Your task to perform on an android device: find which apps use the phone's location Image 0: 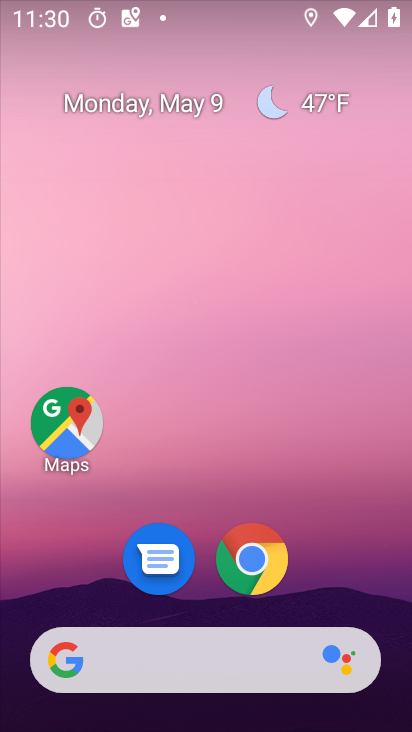
Step 0: drag from (339, 583) to (332, 112)
Your task to perform on an android device: find which apps use the phone's location Image 1: 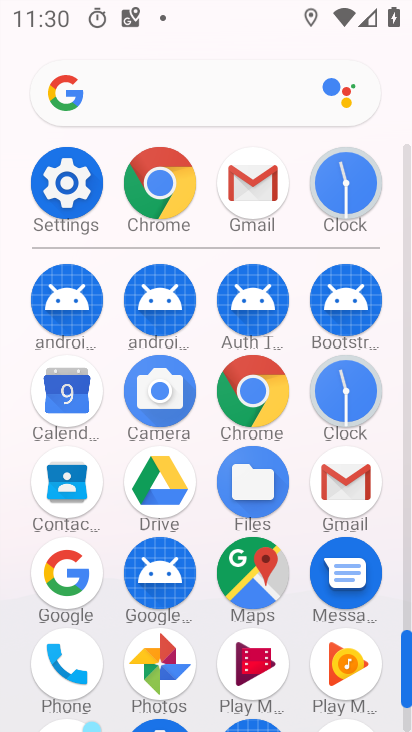
Step 1: click (68, 659)
Your task to perform on an android device: find which apps use the phone's location Image 2: 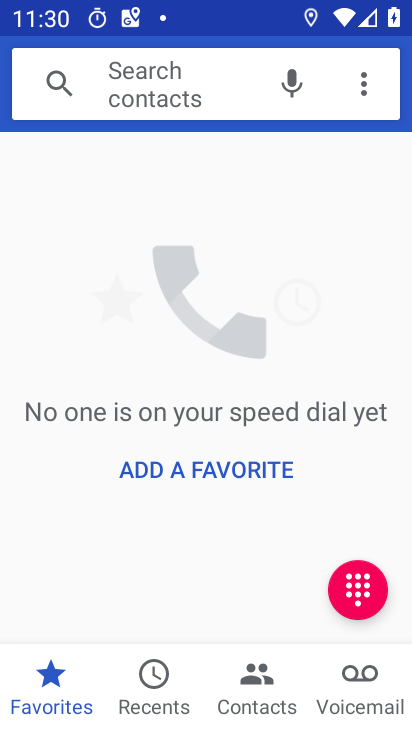
Step 2: press home button
Your task to perform on an android device: find which apps use the phone's location Image 3: 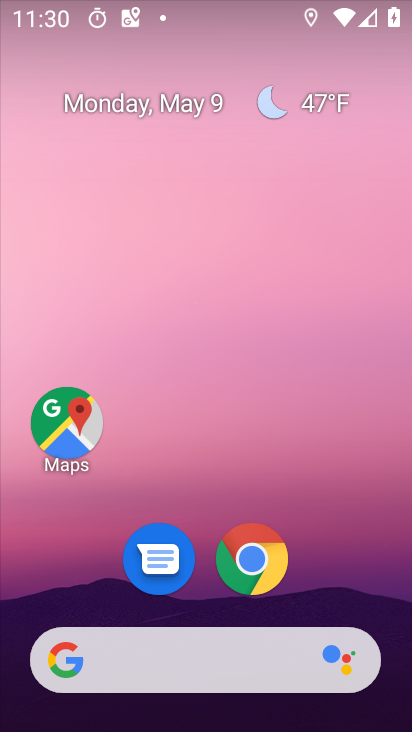
Step 3: drag from (319, 249) to (319, 16)
Your task to perform on an android device: find which apps use the phone's location Image 4: 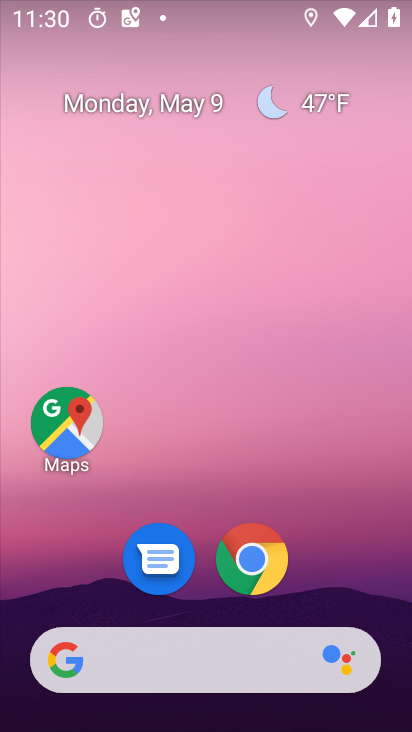
Step 4: drag from (153, 541) to (176, 95)
Your task to perform on an android device: find which apps use the phone's location Image 5: 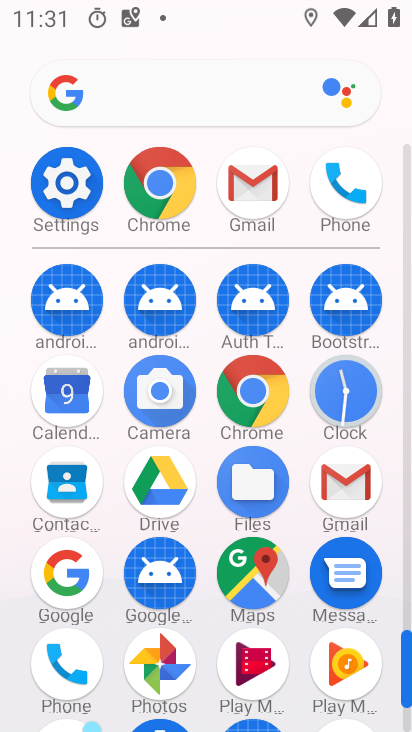
Step 5: click (67, 666)
Your task to perform on an android device: find which apps use the phone's location Image 6: 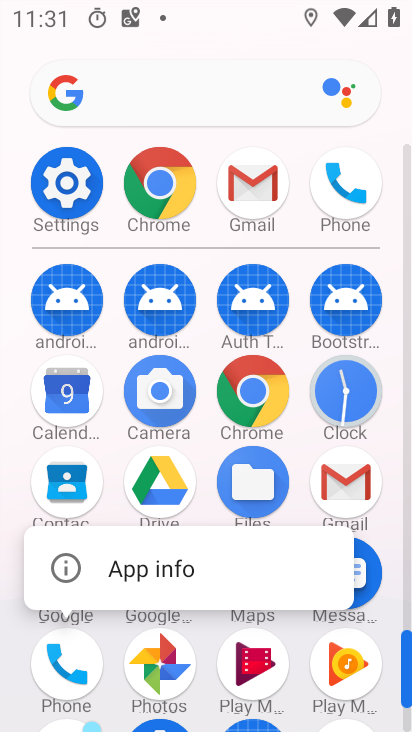
Step 6: click (137, 597)
Your task to perform on an android device: find which apps use the phone's location Image 7: 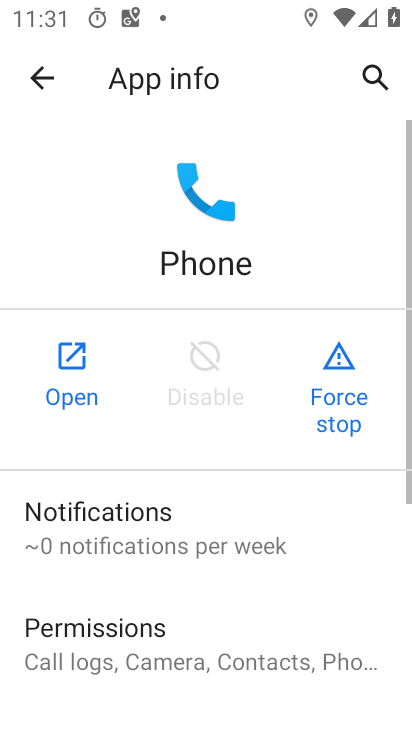
Step 7: click (153, 657)
Your task to perform on an android device: find which apps use the phone's location Image 8: 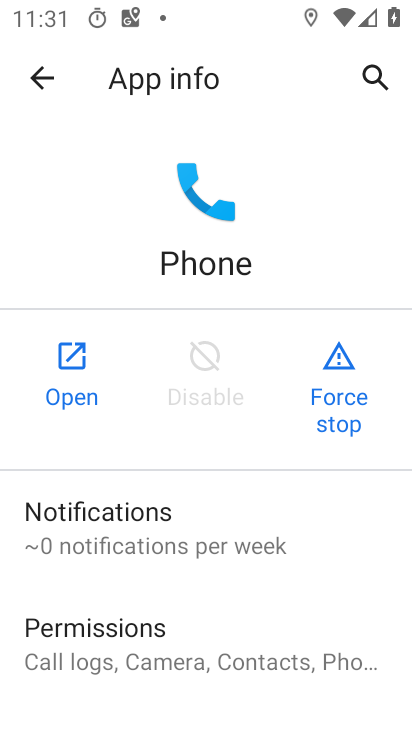
Step 8: drag from (153, 657) to (196, 290)
Your task to perform on an android device: find which apps use the phone's location Image 9: 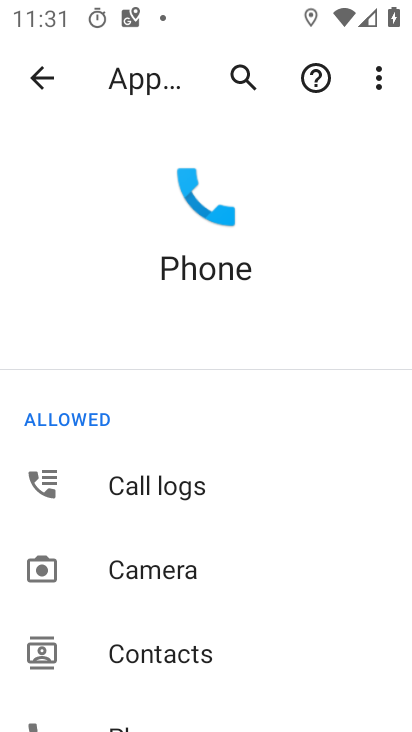
Step 9: drag from (230, 473) to (225, 228)
Your task to perform on an android device: find which apps use the phone's location Image 10: 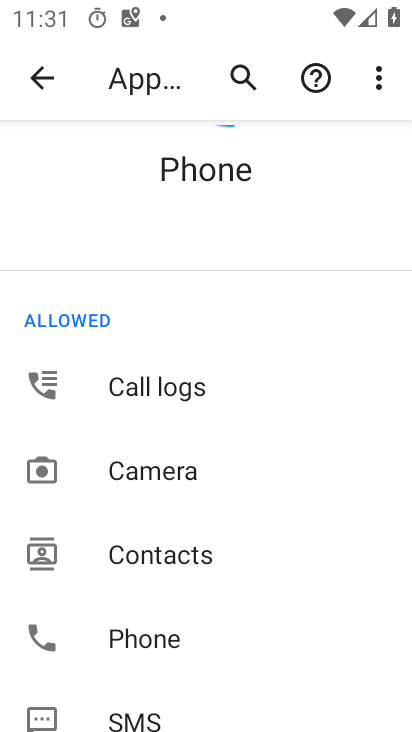
Step 10: drag from (164, 630) to (175, 151)
Your task to perform on an android device: find which apps use the phone's location Image 11: 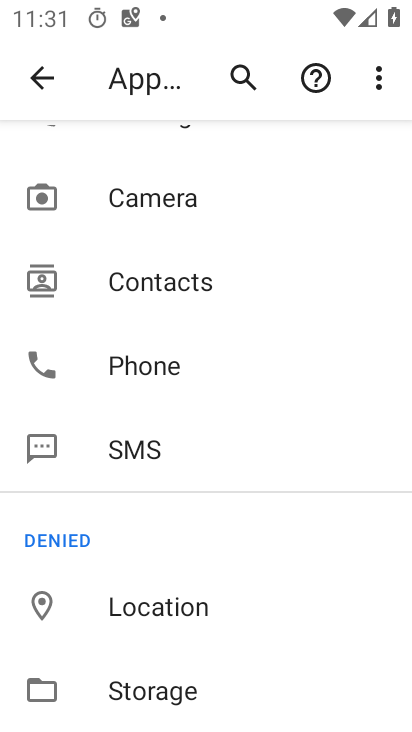
Step 11: click (155, 602)
Your task to perform on an android device: find which apps use the phone's location Image 12: 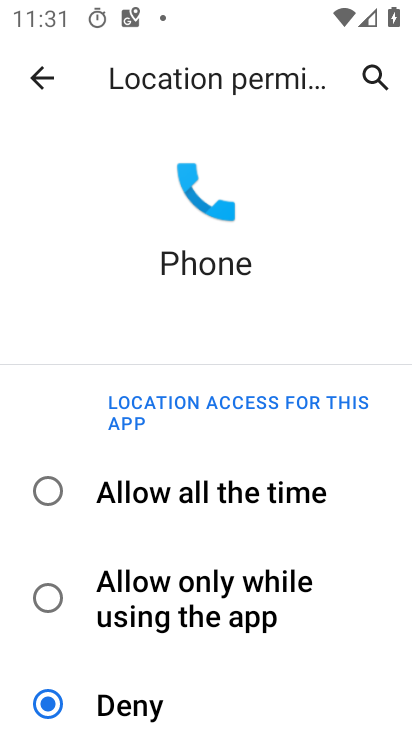
Step 12: drag from (187, 673) to (197, 228)
Your task to perform on an android device: find which apps use the phone's location Image 13: 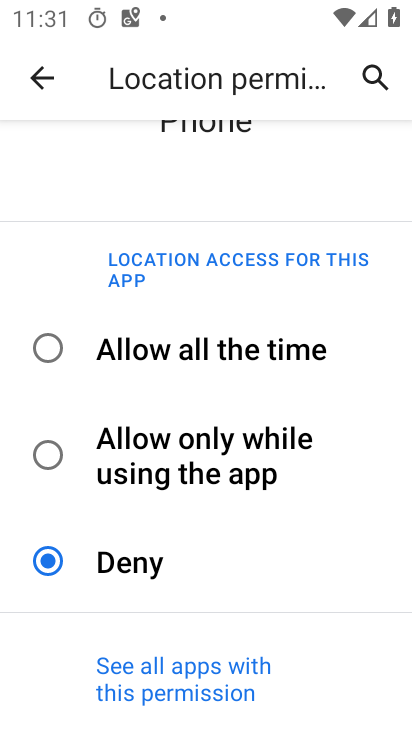
Step 13: click (231, 281)
Your task to perform on an android device: find which apps use the phone's location Image 14: 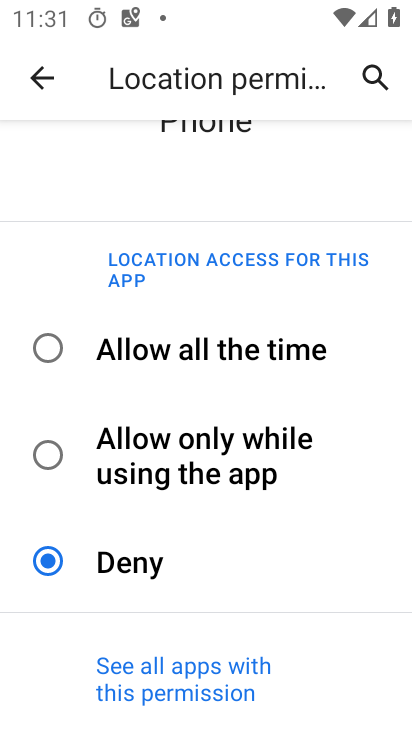
Step 14: click (248, 267)
Your task to perform on an android device: find which apps use the phone's location Image 15: 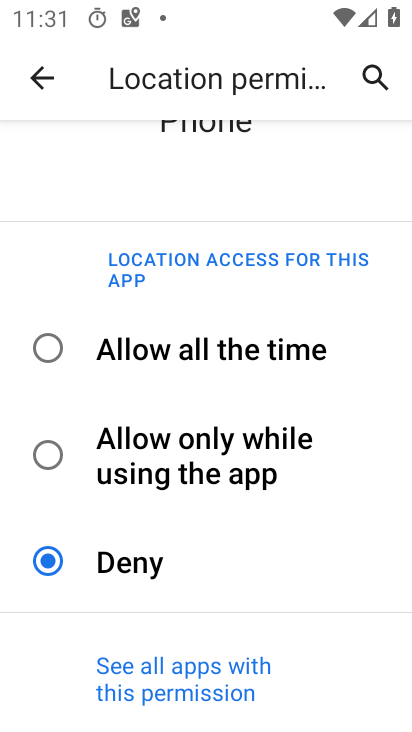
Step 15: click (285, 252)
Your task to perform on an android device: find which apps use the phone's location Image 16: 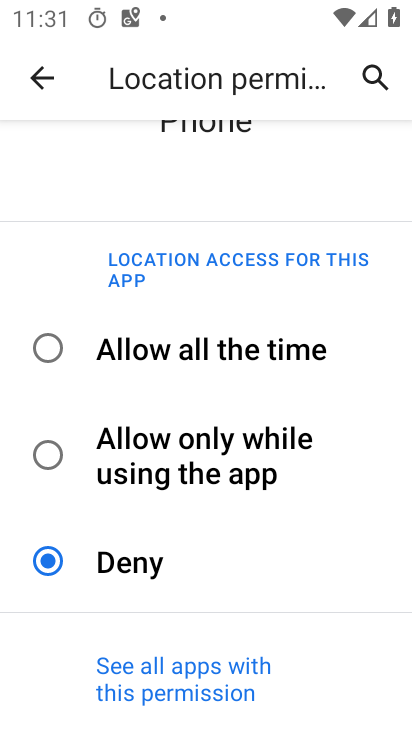
Step 16: click (173, 687)
Your task to perform on an android device: find which apps use the phone's location Image 17: 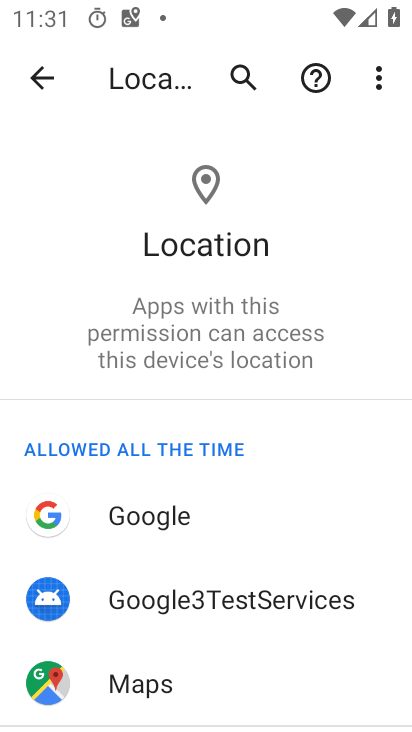
Step 17: task complete